Your task to perform on an android device: toggle translation in the chrome app Image 0: 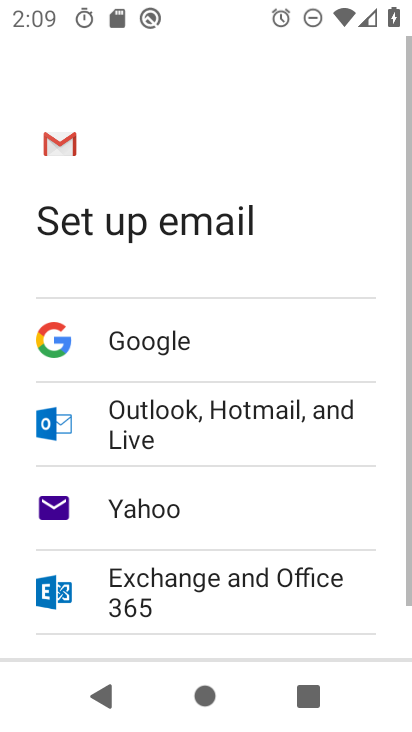
Step 0: press back button
Your task to perform on an android device: toggle translation in the chrome app Image 1: 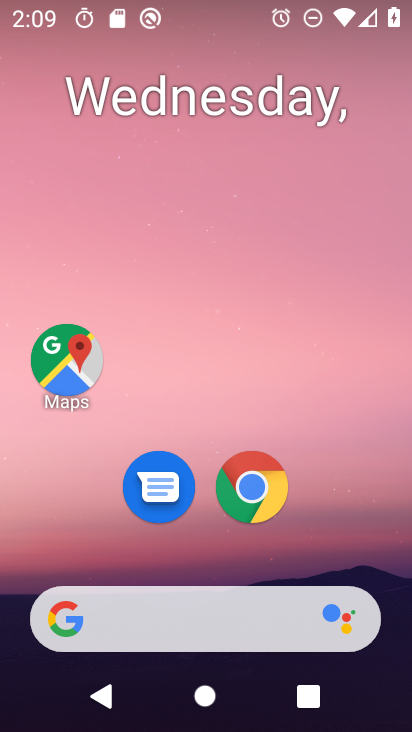
Step 1: click (262, 494)
Your task to perform on an android device: toggle translation in the chrome app Image 2: 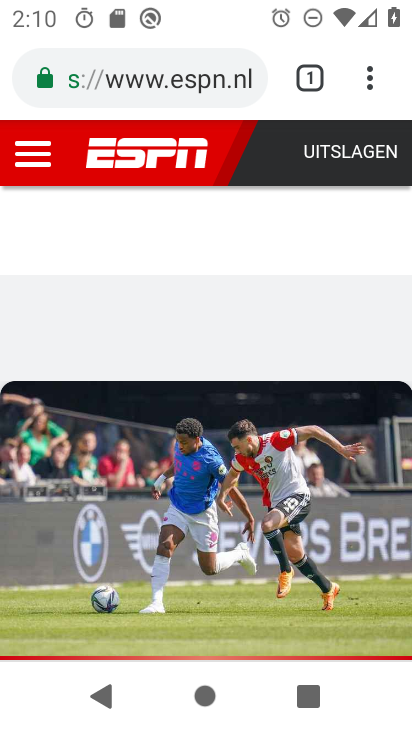
Step 2: drag from (374, 72) to (106, 539)
Your task to perform on an android device: toggle translation in the chrome app Image 3: 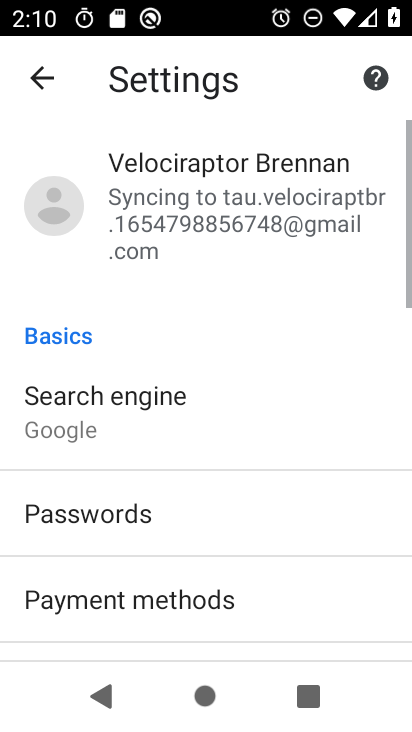
Step 3: drag from (217, 595) to (317, 10)
Your task to perform on an android device: toggle translation in the chrome app Image 4: 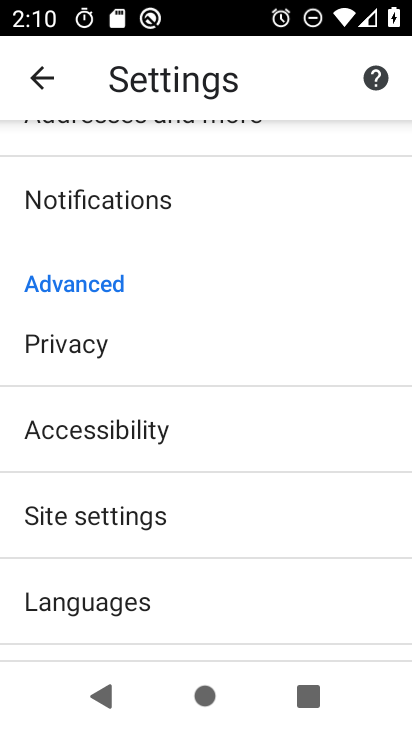
Step 4: click (114, 609)
Your task to perform on an android device: toggle translation in the chrome app Image 5: 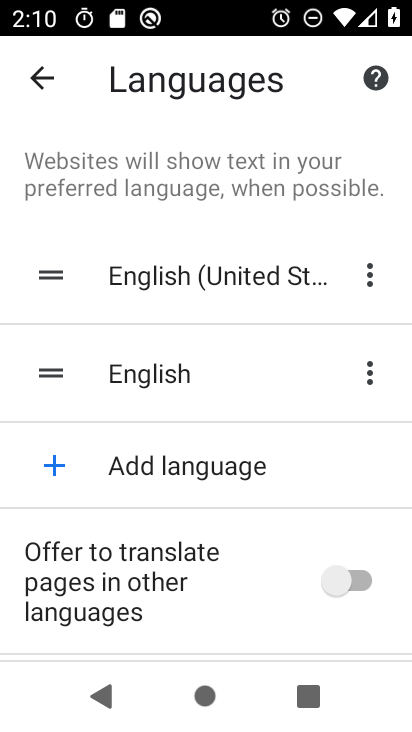
Step 5: click (341, 583)
Your task to perform on an android device: toggle translation in the chrome app Image 6: 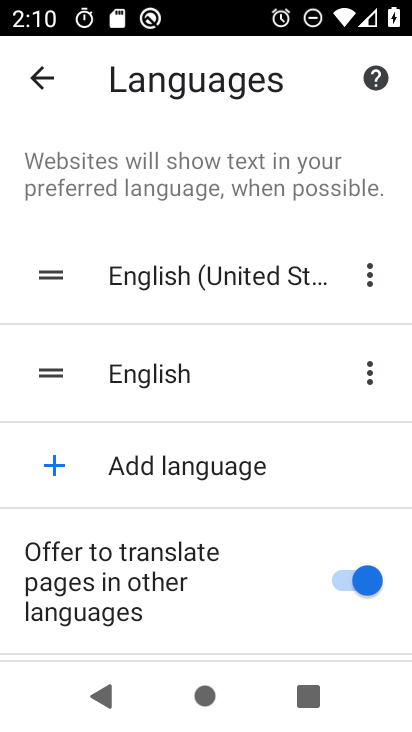
Step 6: task complete